Your task to perform on an android device: read, delete, or share a saved page in the chrome app Image 0: 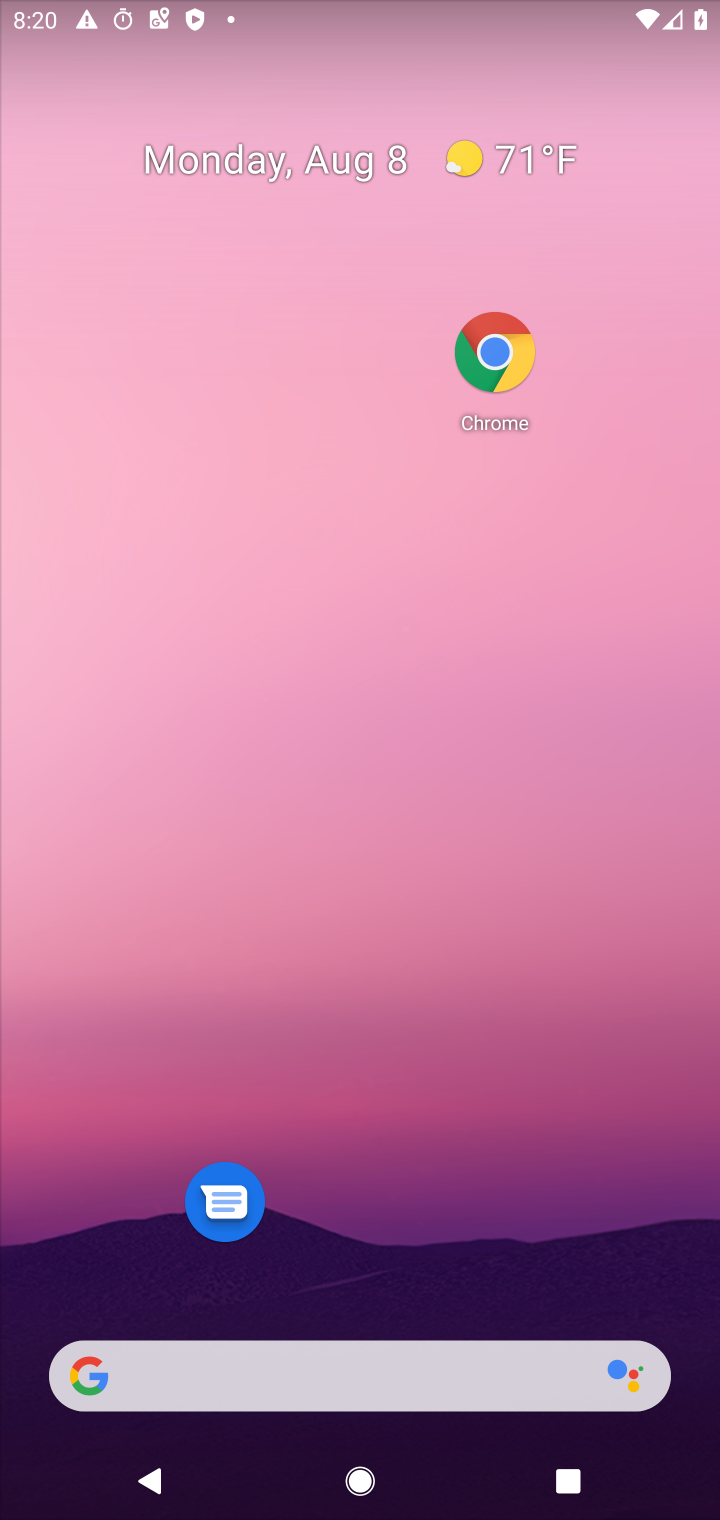
Step 0: drag from (261, 1197) to (716, 1171)
Your task to perform on an android device: read, delete, or share a saved page in the chrome app Image 1: 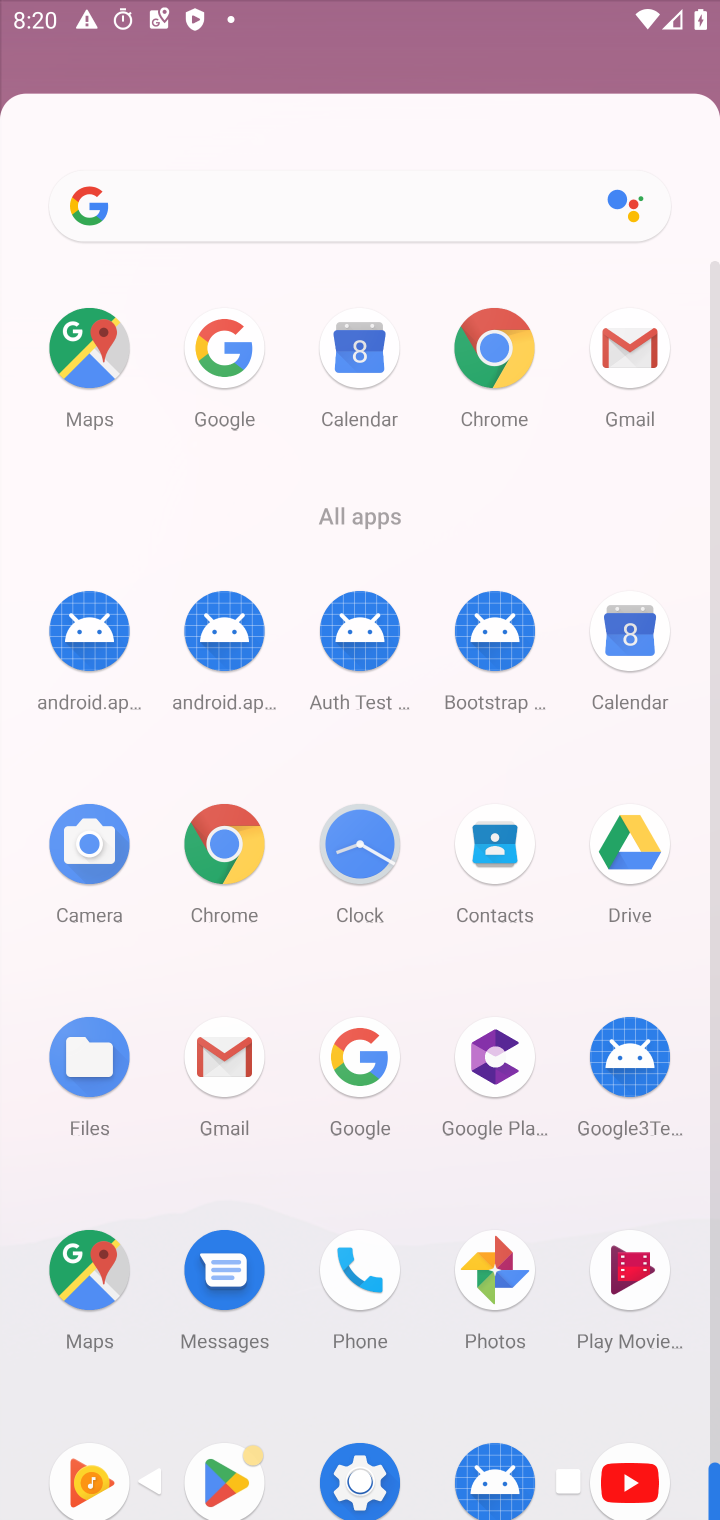
Step 1: drag from (364, 1060) to (296, 339)
Your task to perform on an android device: read, delete, or share a saved page in the chrome app Image 2: 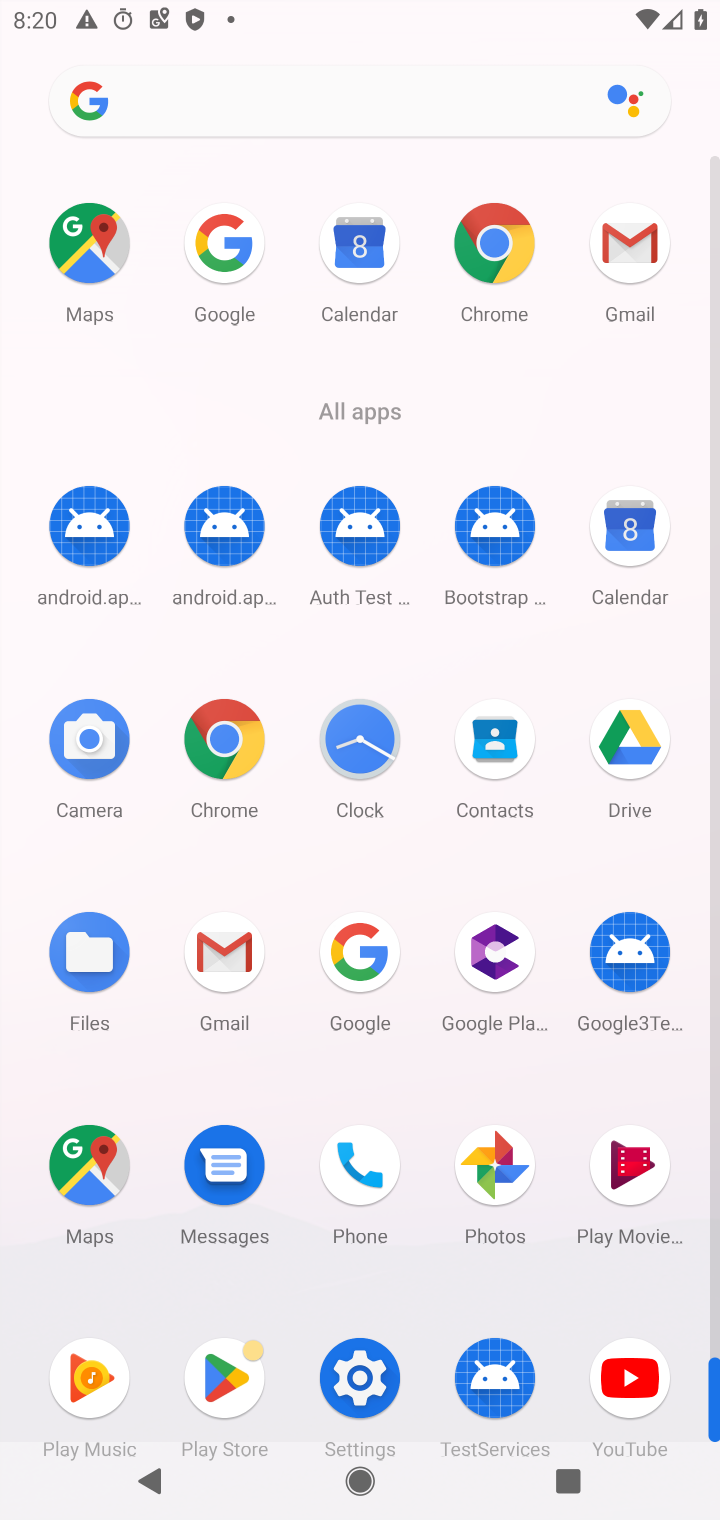
Step 2: click (508, 266)
Your task to perform on an android device: read, delete, or share a saved page in the chrome app Image 3: 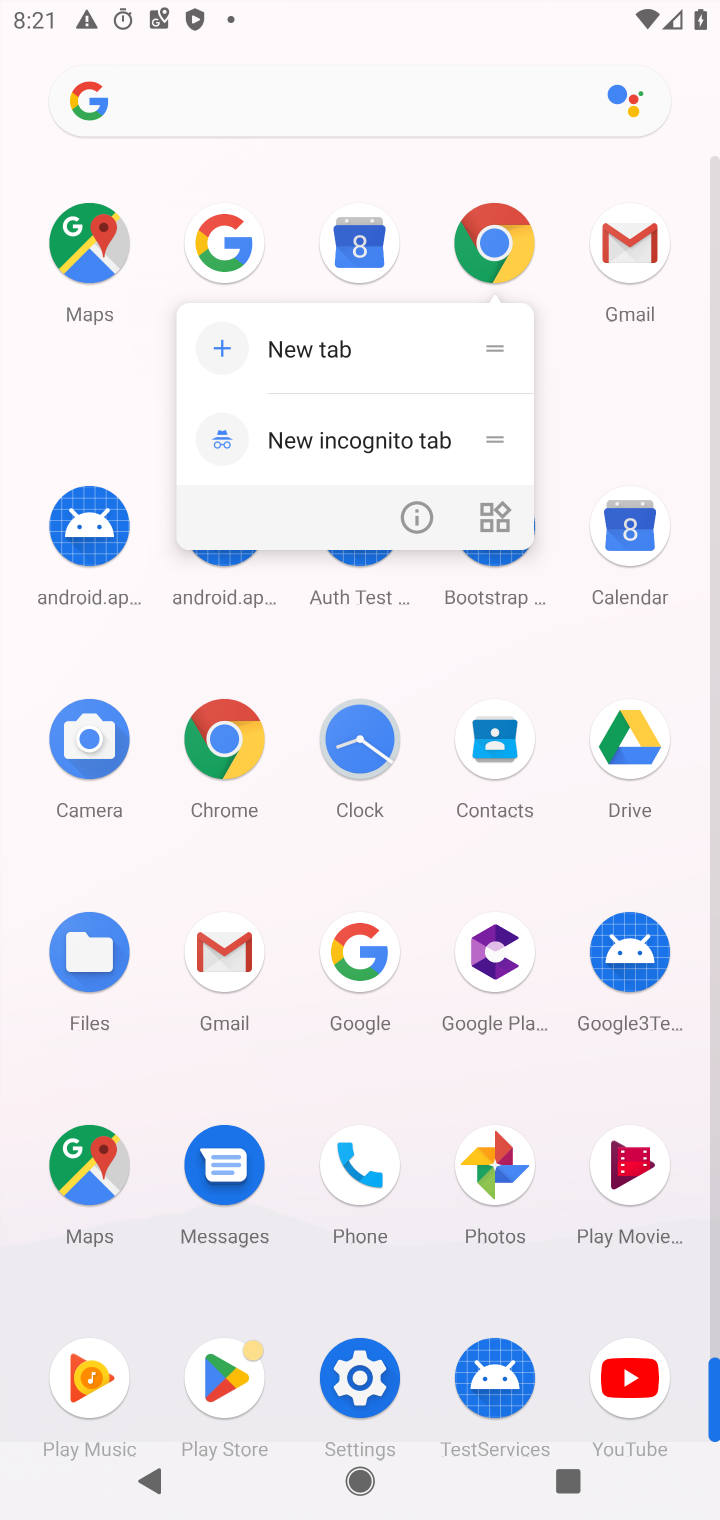
Step 3: click (486, 246)
Your task to perform on an android device: read, delete, or share a saved page in the chrome app Image 4: 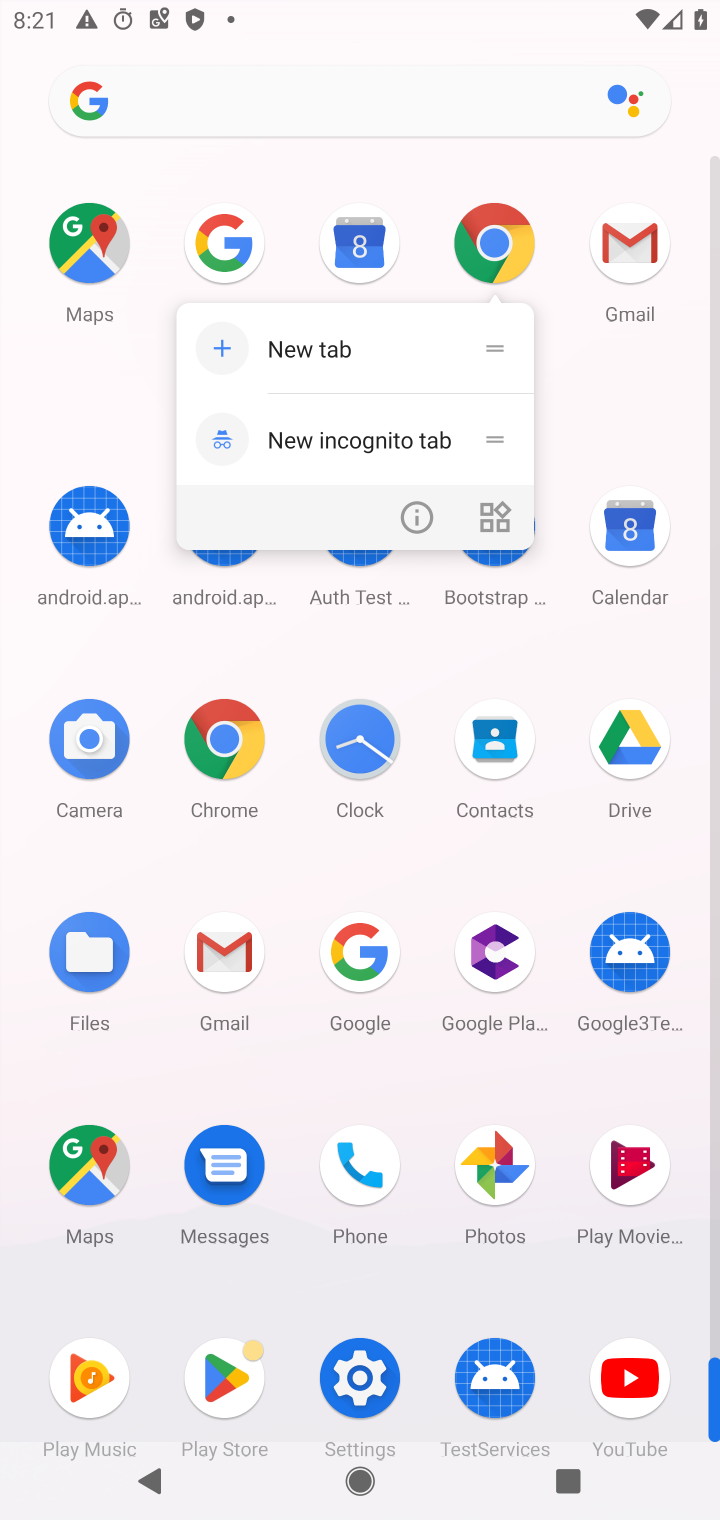
Step 4: click (529, 208)
Your task to perform on an android device: read, delete, or share a saved page in the chrome app Image 5: 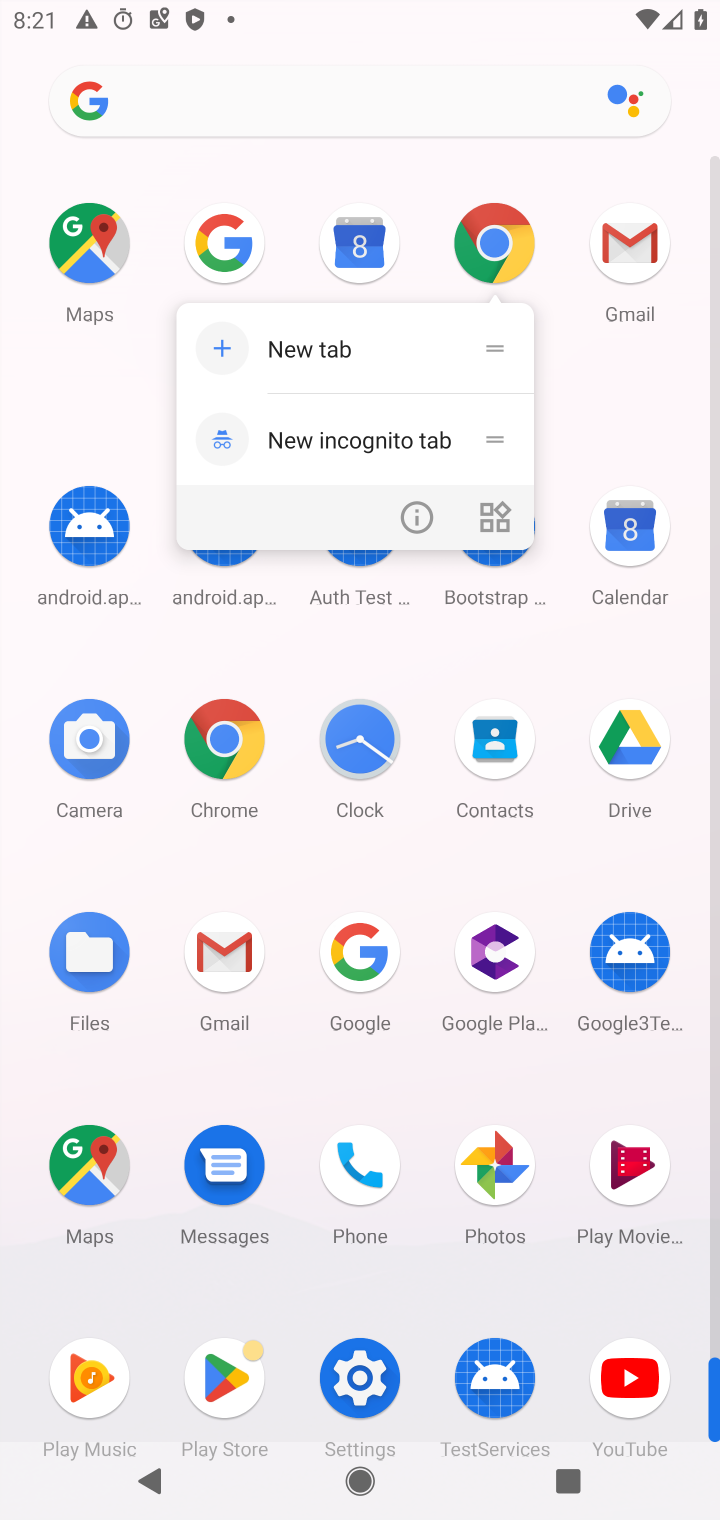
Step 5: click (520, 246)
Your task to perform on an android device: read, delete, or share a saved page in the chrome app Image 6: 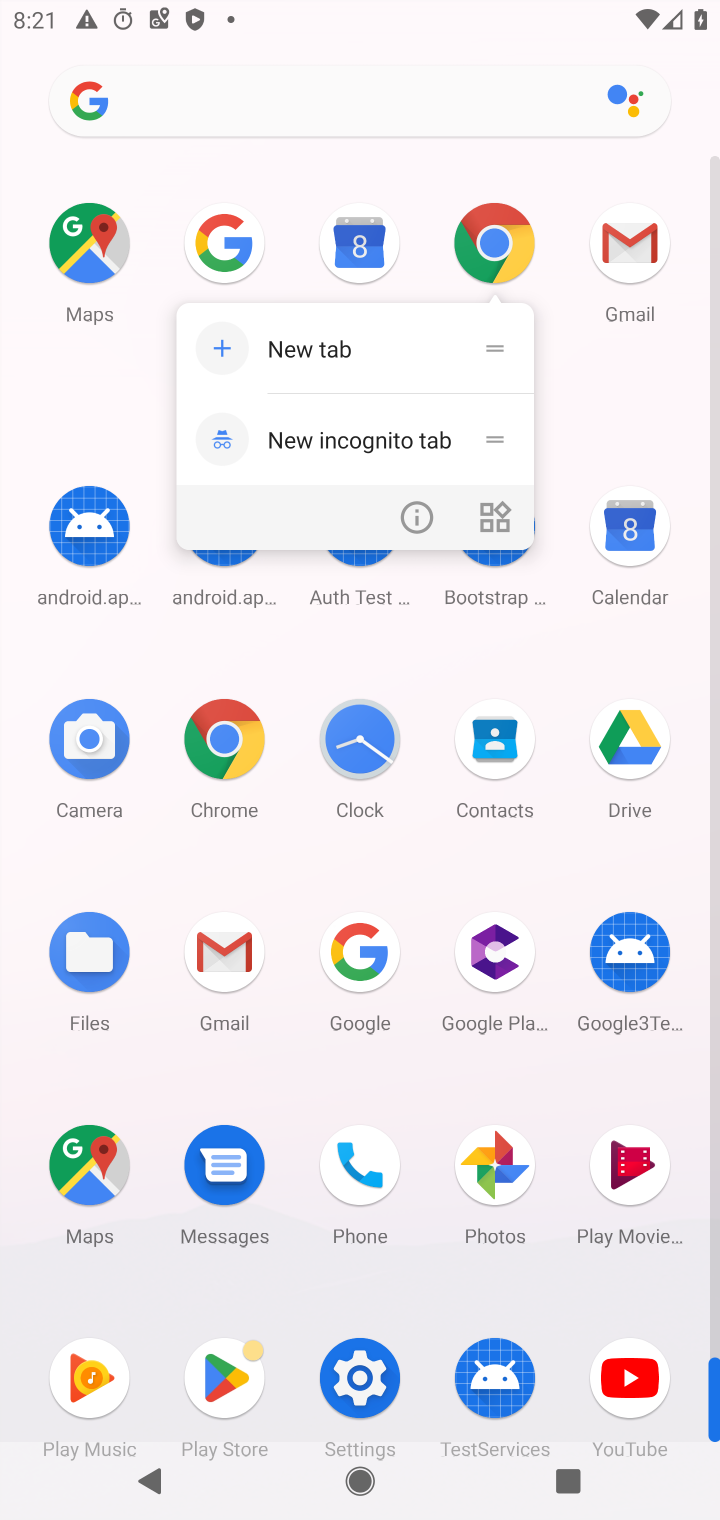
Step 6: click (518, 248)
Your task to perform on an android device: read, delete, or share a saved page in the chrome app Image 7: 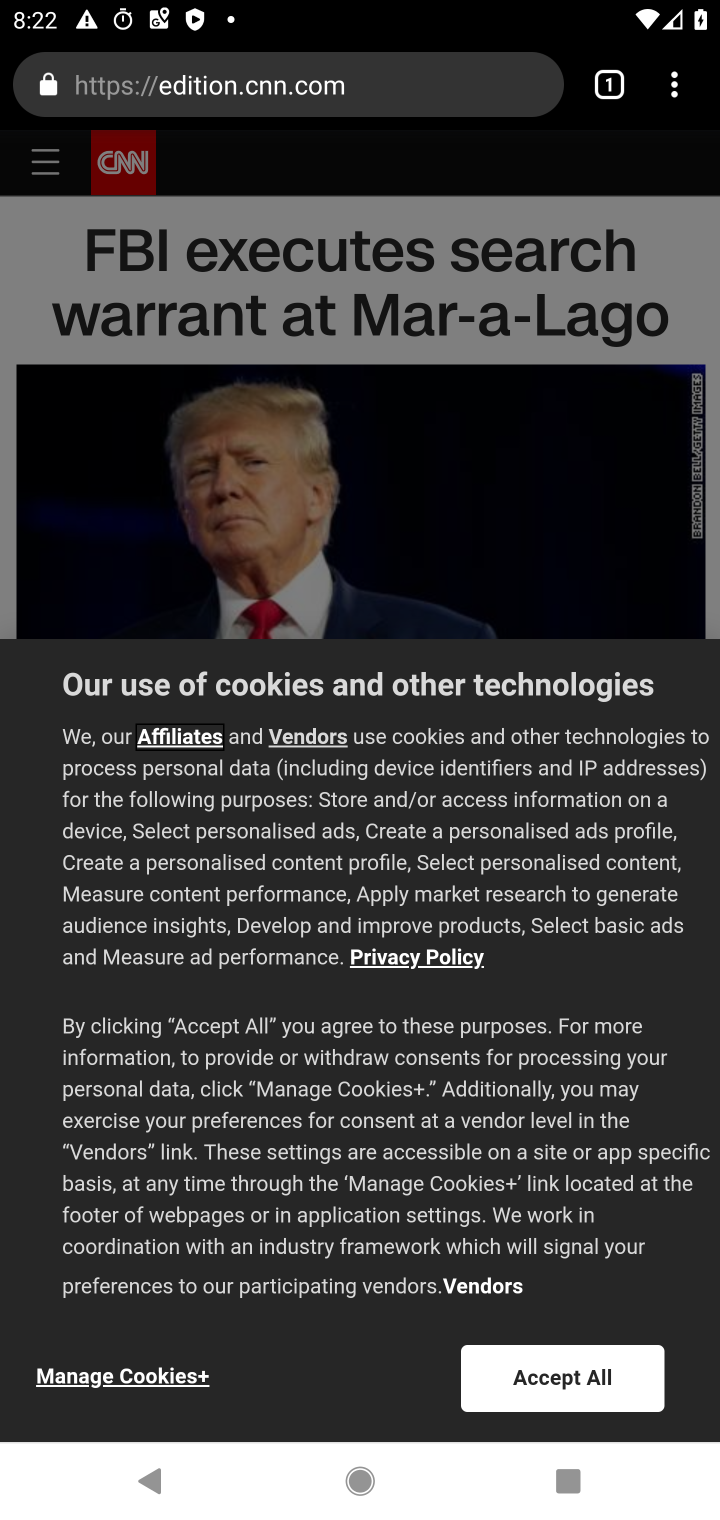
Step 7: click (673, 96)
Your task to perform on an android device: read, delete, or share a saved page in the chrome app Image 8: 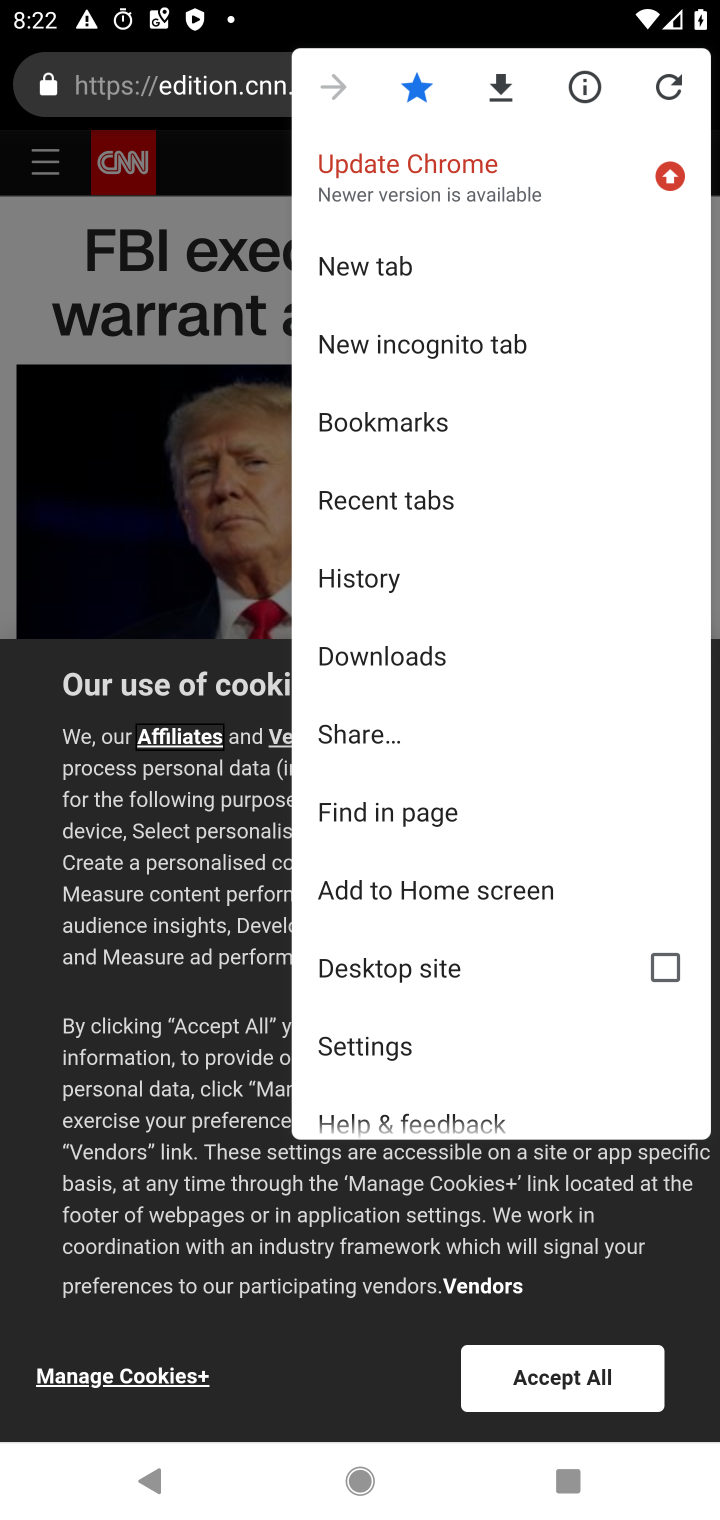
Step 8: click (402, 660)
Your task to perform on an android device: read, delete, or share a saved page in the chrome app Image 9: 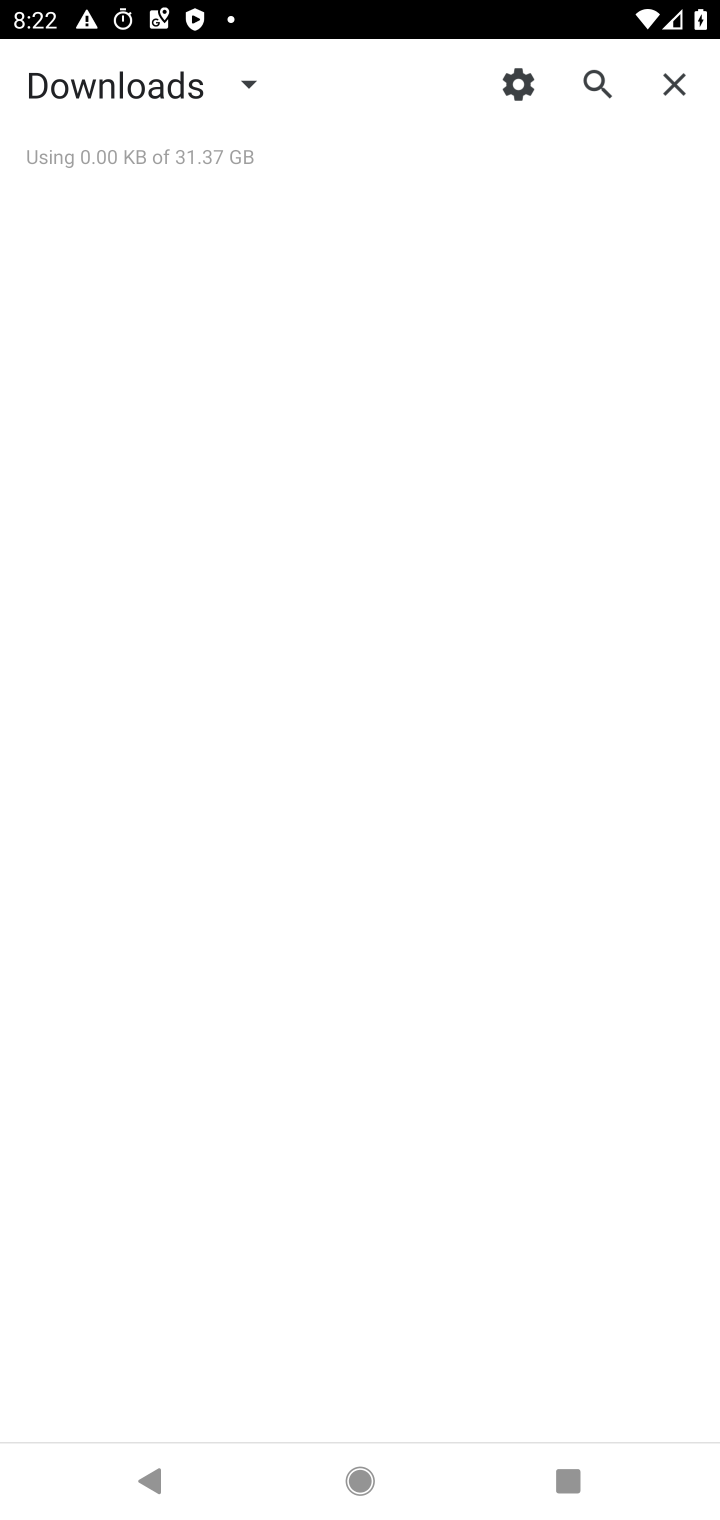
Step 9: click (229, 82)
Your task to perform on an android device: read, delete, or share a saved page in the chrome app Image 10: 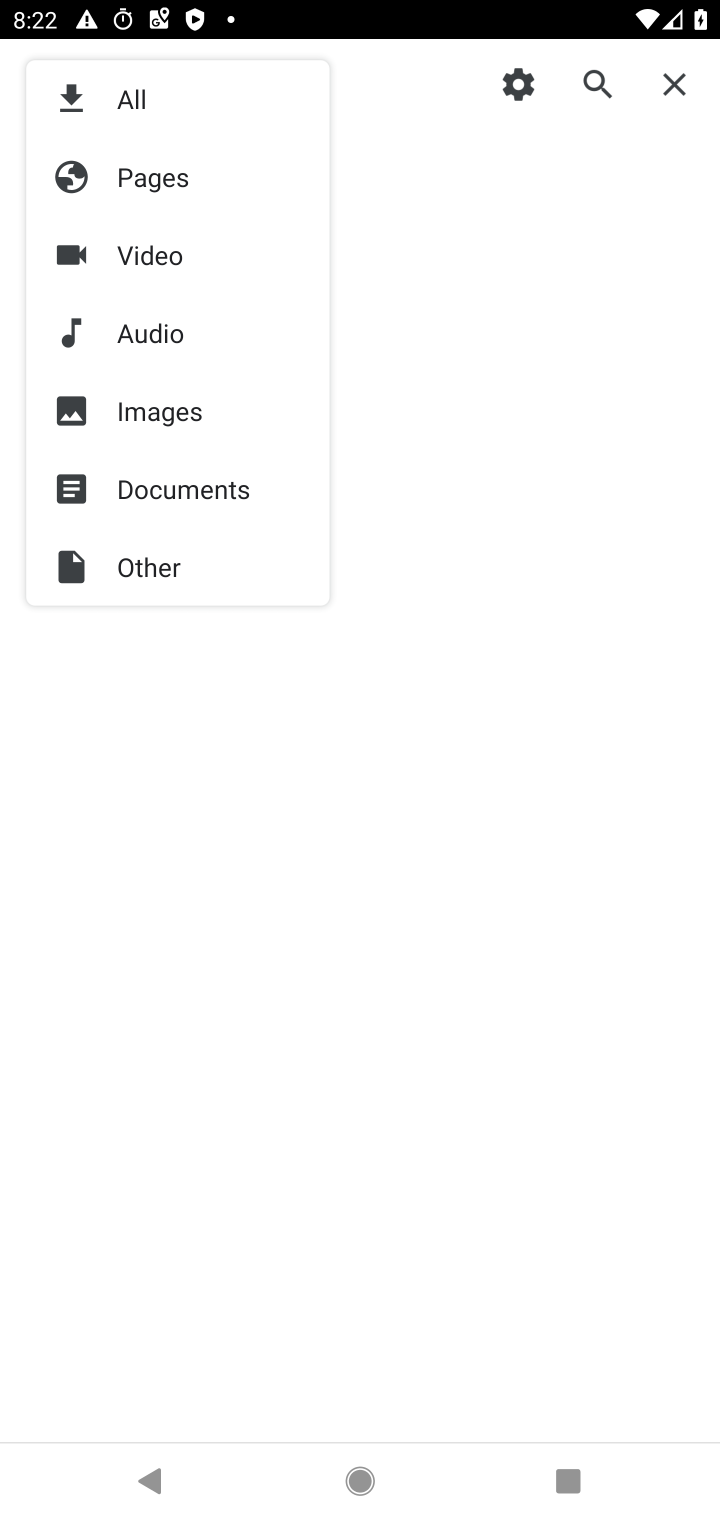
Step 10: click (187, 192)
Your task to perform on an android device: read, delete, or share a saved page in the chrome app Image 11: 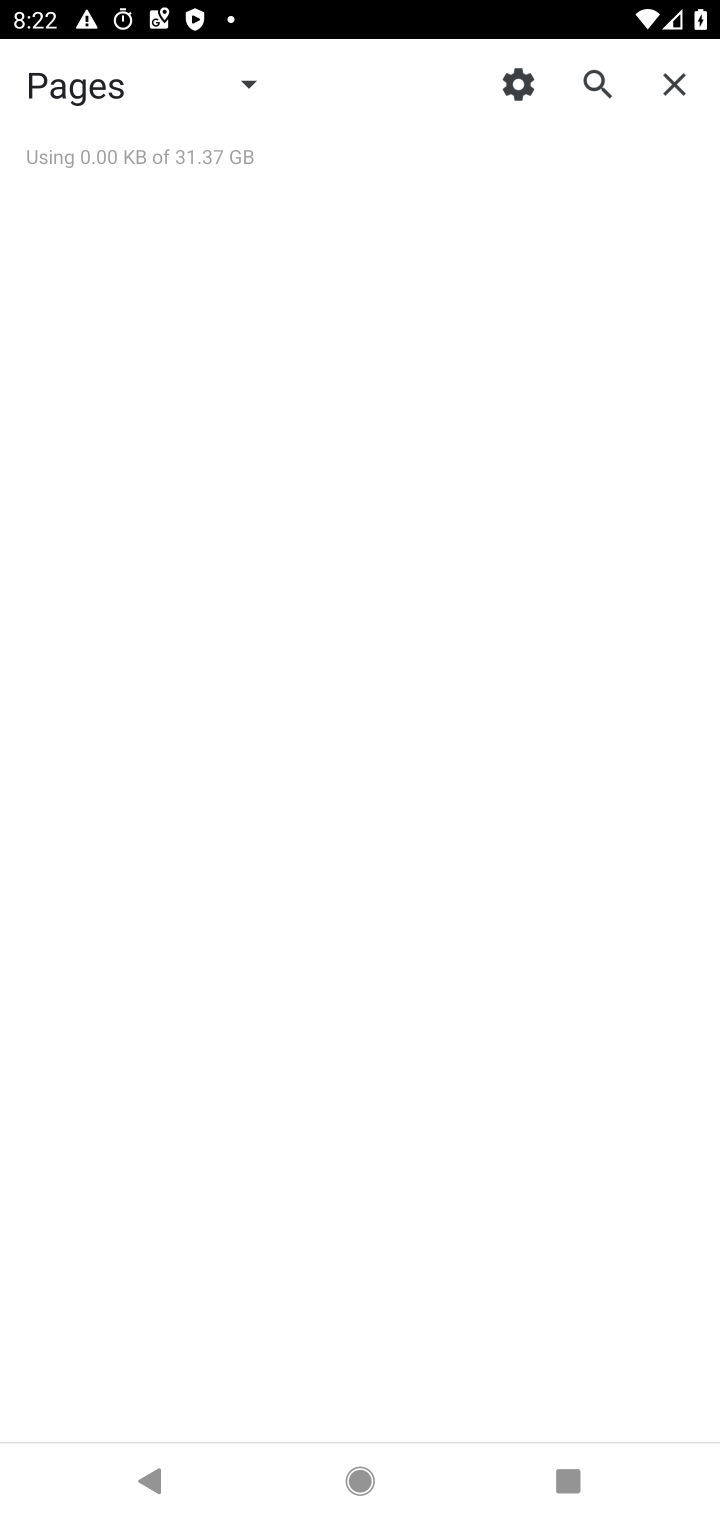
Step 11: task complete